Your task to perform on an android device: read, delete, or share a saved page in the chrome app Image 0: 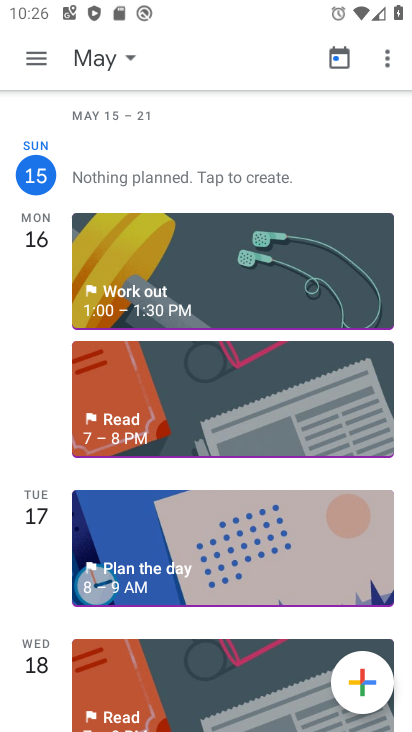
Step 0: press home button
Your task to perform on an android device: read, delete, or share a saved page in the chrome app Image 1: 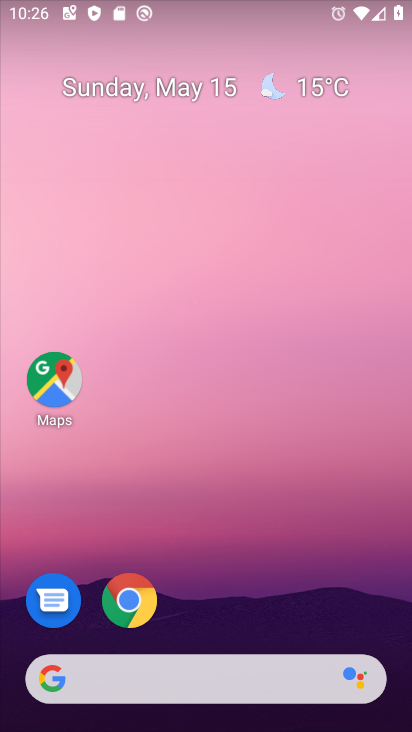
Step 1: drag from (352, 537) to (358, 162)
Your task to perform on an android device: read, delete, or share a saved page in the chrome app Image 2: 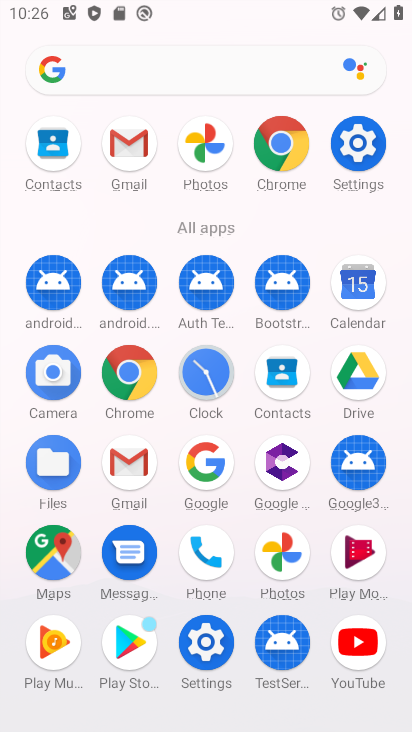
Step 2: click (286, 156)
Your task to perform on an android device: read, delete, or share a saved page in the chrome app Image 3: 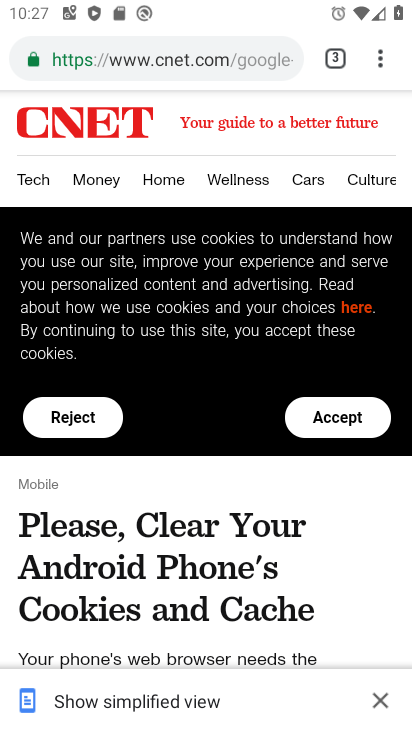
Step 3: click (379, 61)
Your task to perform on an android device: read, delete, or share a saved page in the chrome app Image 4: 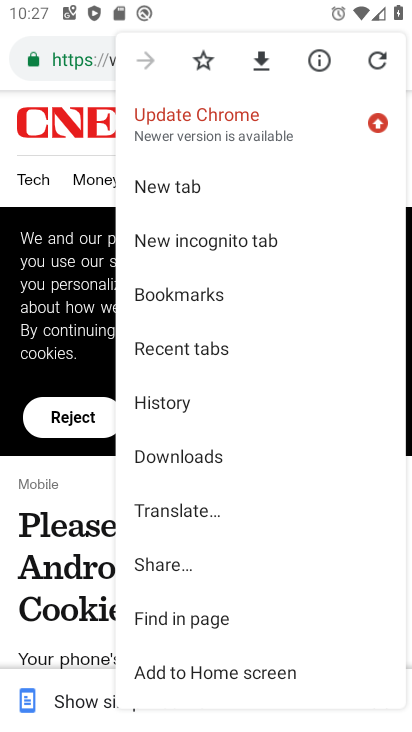
Step 4: drag from (319, 554) to (313, 360)
Your task to perform on an android device: read, delete, or share a saved page in the chrome app Image 5: 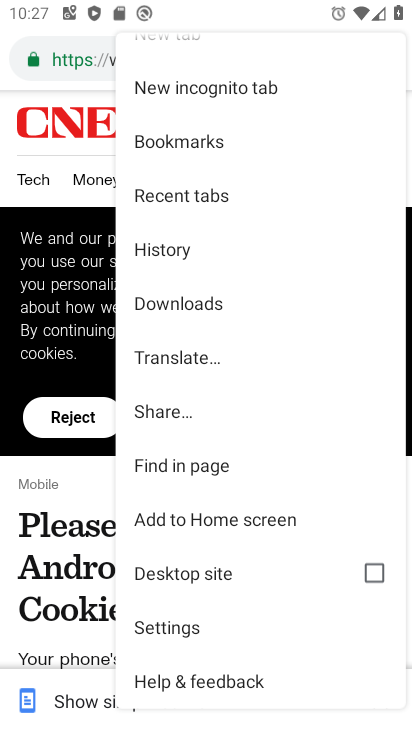
Step 5: click (214, 296)
Your task to perform on an android device: read, delete, or share a saved page in the chrome app Image 6: 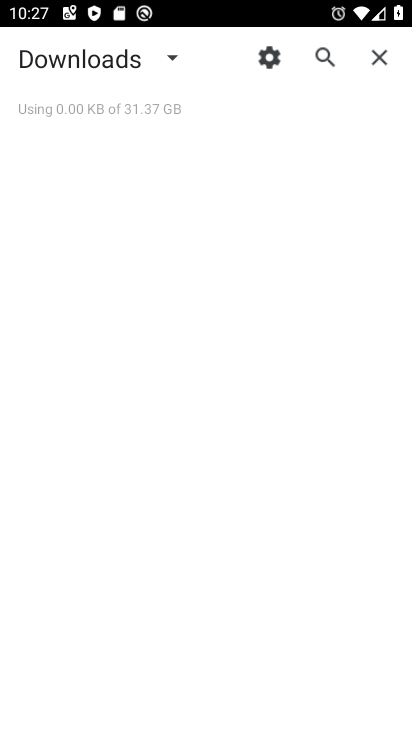
Step 6: click (176, 66)
Your task to perform on an android device: read, delete, or share a saved page in the chrome app Image 7: 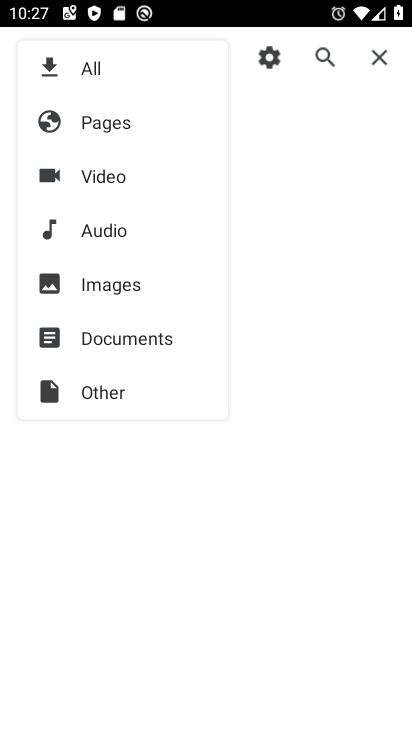
Step 7: click (116, 126)
Your task to perform on an android device: read, delete, or share a saved page in the chrome app Image 8: 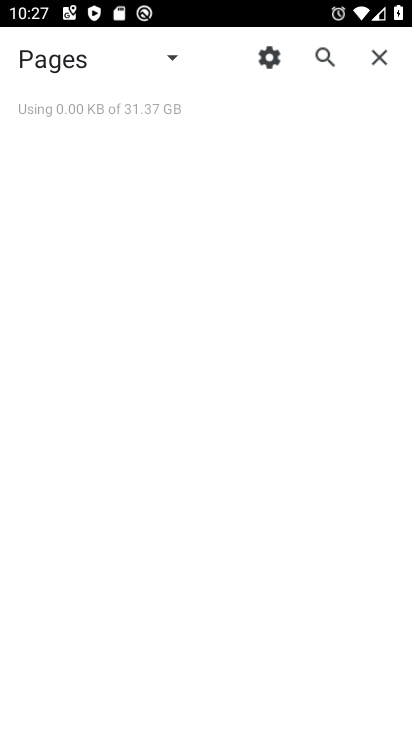
Step 8: task complete